Your task to perform on an android device: Show the shopping cart on target.com. Image 0: 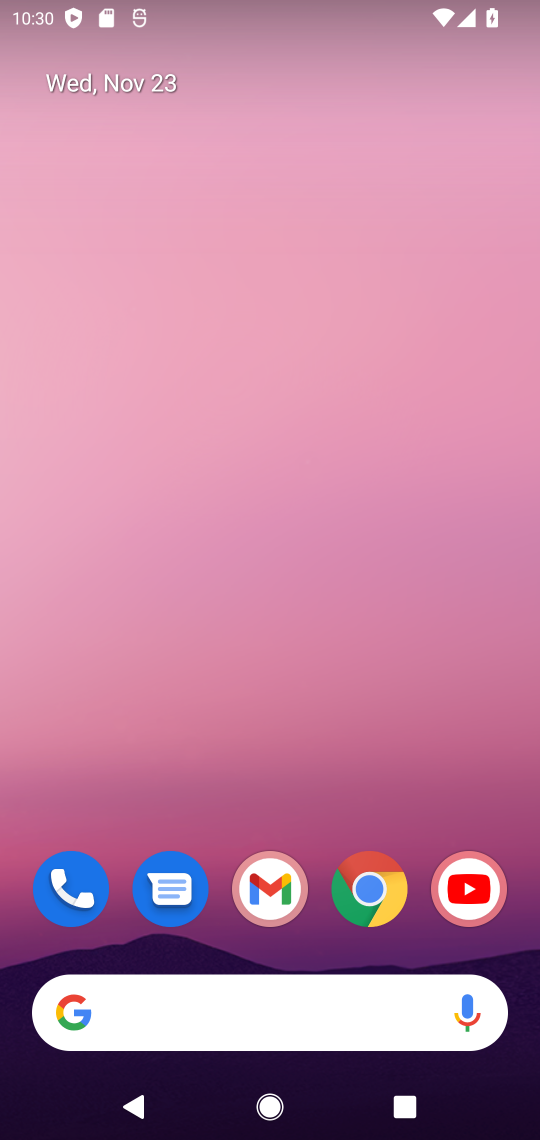
Step 0: click (376, 893)
Your task to perform on an android device: Show the shopping cart on target.com. Image 1: 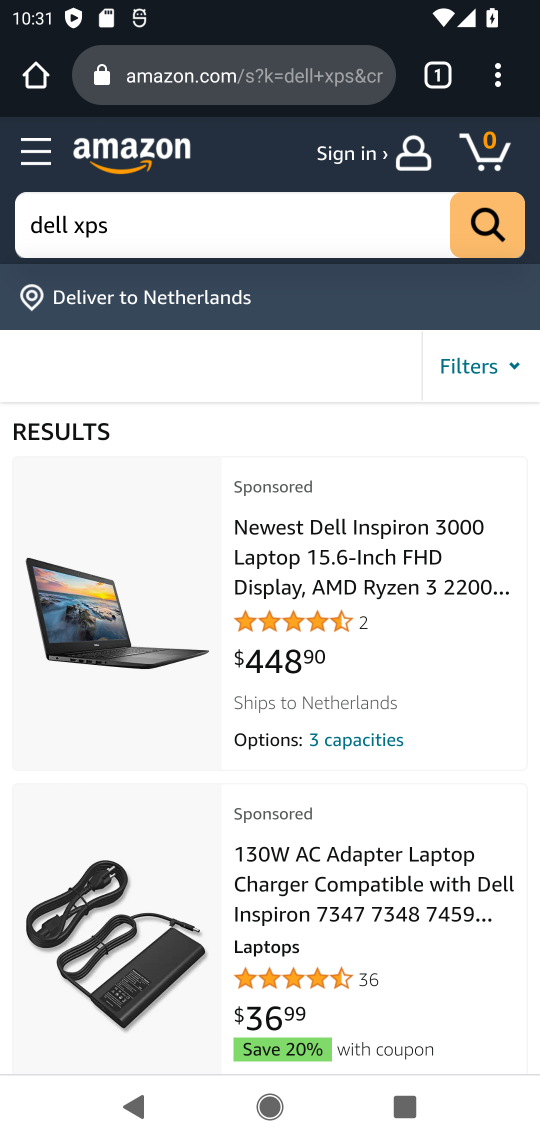
Step 1: click (206, 70)
Your task to perform on an android device: Show the shopping cart on target.com. Image 2: 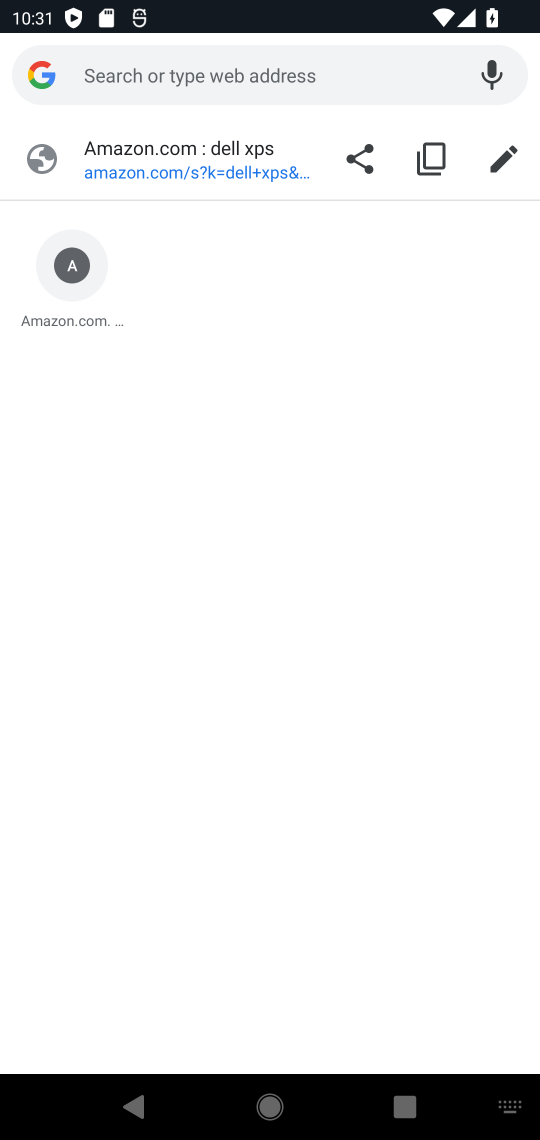
Step 2: click (206, 70)
Your task to perform on an android device: Show the shopping cart on target.com. Image 3: 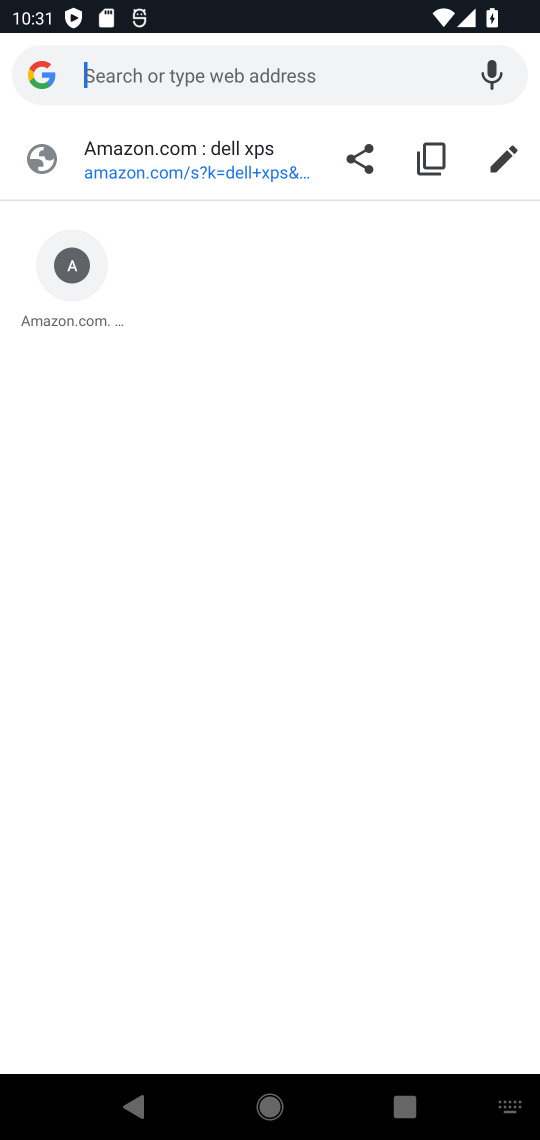
Step 3: type "target.com"
Your task to perform on an android device: Show the shopping cart on target.com. Image 4: 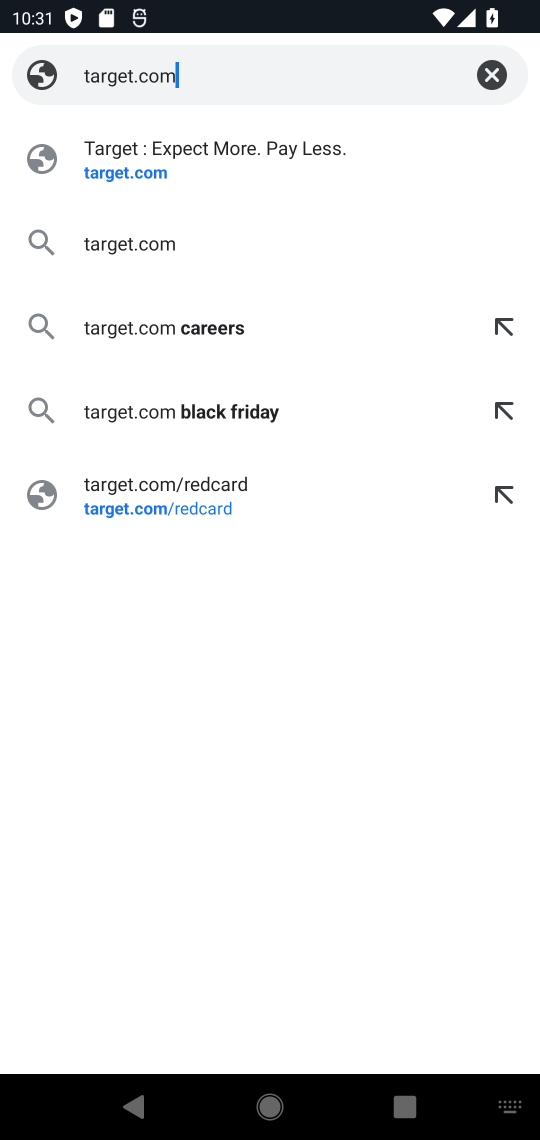
Step 4: click (125, 184)
Your task to perform on an android device: Show the shopping cart on target.com. Image 5: 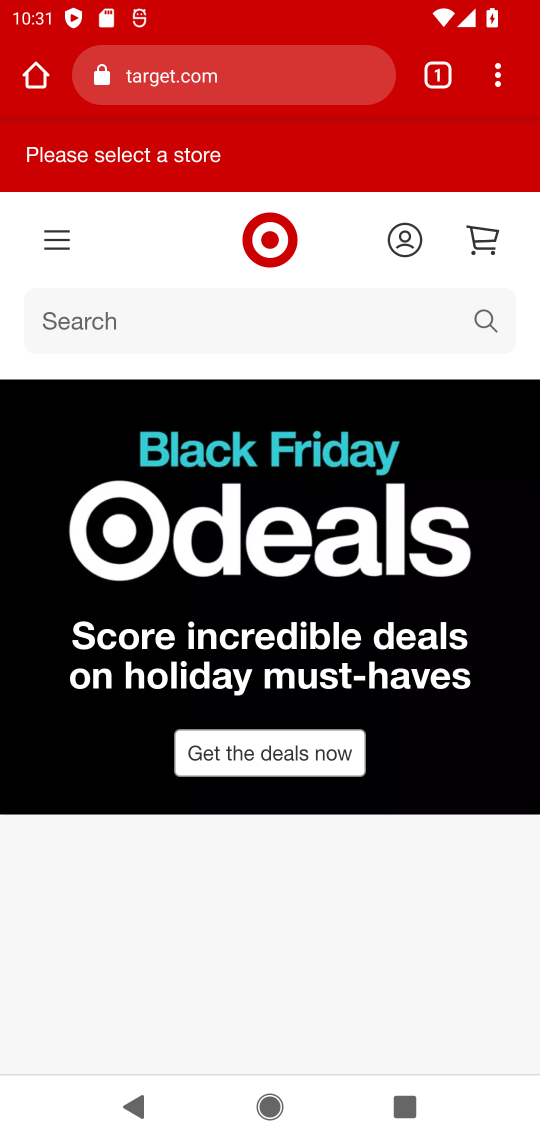
Step 5: click (487, 242)
Your task to perform on an android device: Show the shopping cart on target.com. Image 6: 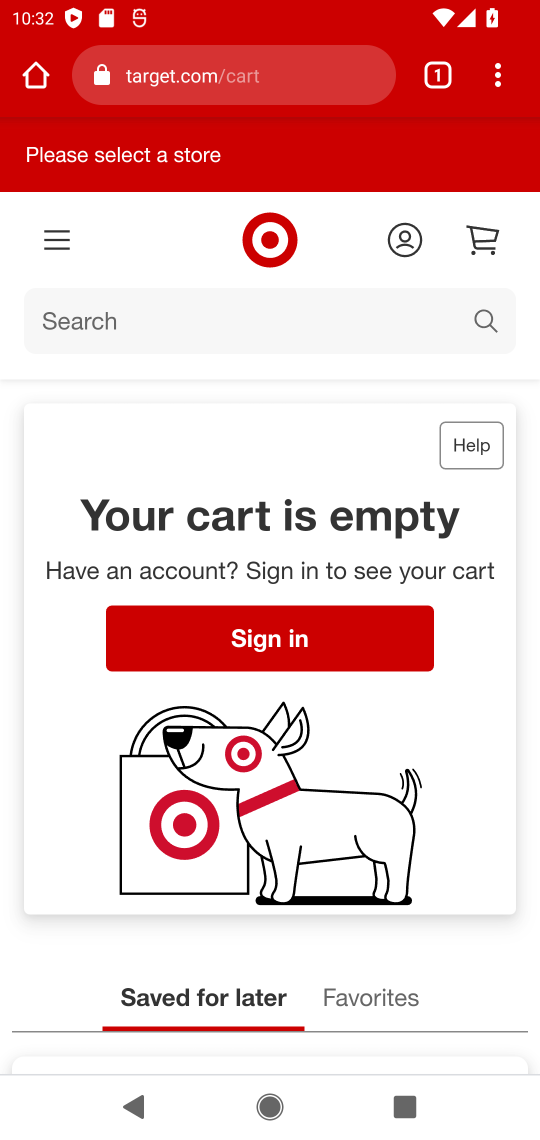
Step 6: task complete